Your task to perform on an android device: turn off location Image 0: 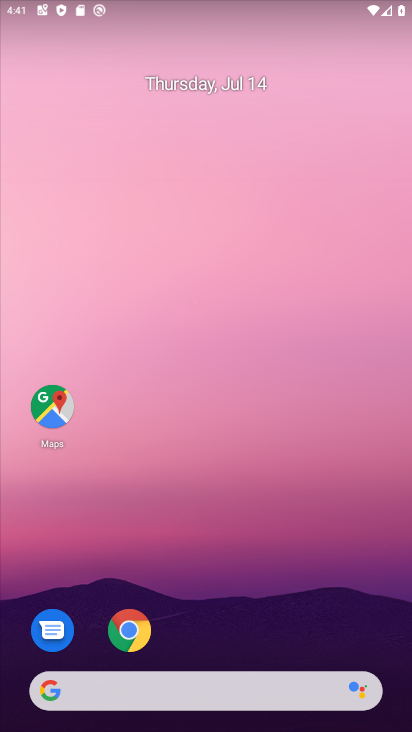
Step 0: drag from (249, 648) to (285, 343)
Your task to perform on an android device: turn off location Image 1: 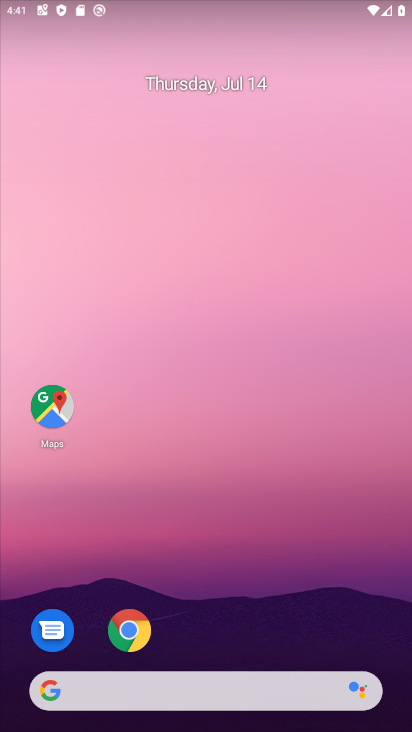
Step 1: drag from (247, 650) to (296, 142)
Your task to perform on an android device: turn off location Image 2: 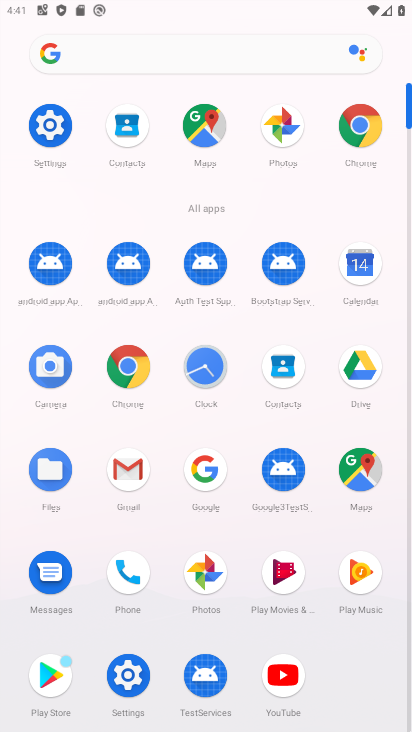
Step 2: click (54, 119)
Your task to perform on an android device: turn off location Image 3: 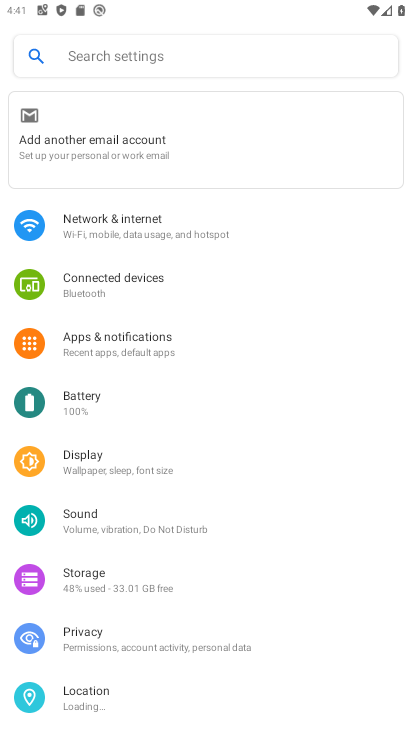
Step 3: click (129, 704)
Your task to perform on an android device: turn off location Image 4: 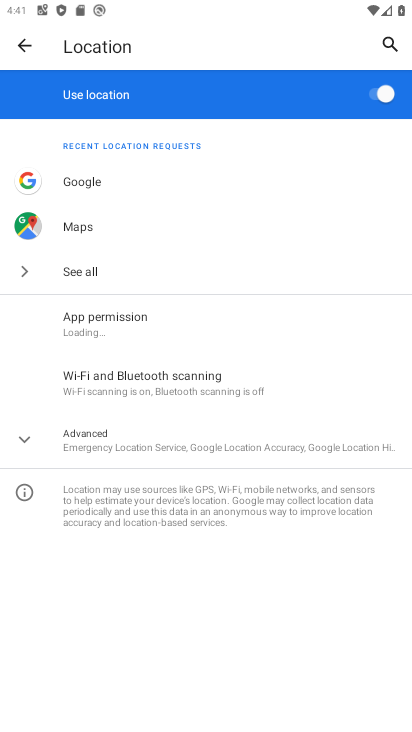
Step 4: click (383, 103)
Your task to perform on an android device: turn off location Image 5: 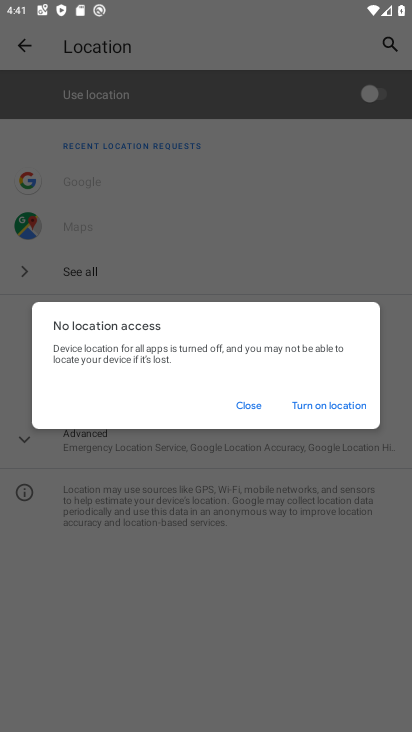
Step 5: task complete